Your task to perform on an android device: snooze an email in the gmail app Image 0: 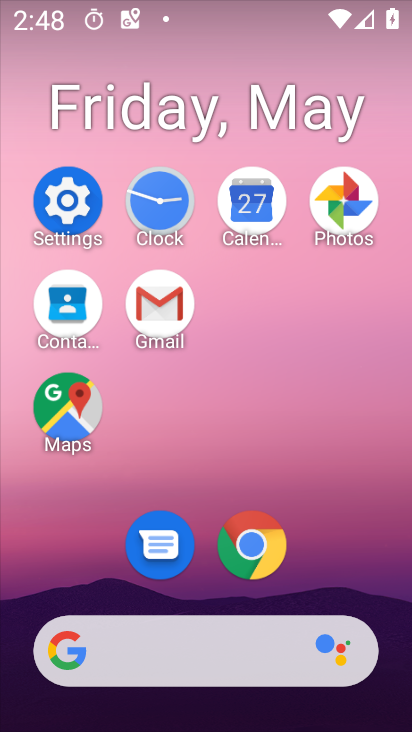
Step 0: click (167, 317)
Your task to perform on an android device: snooze an email in the gmail app Image 1: 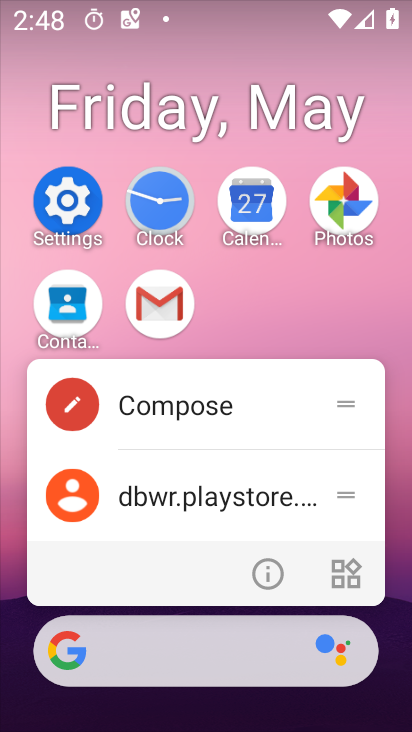
Step 1: click (147, 280)
Your task to perform on an android device: snooze an email in the gmail app Image 2: 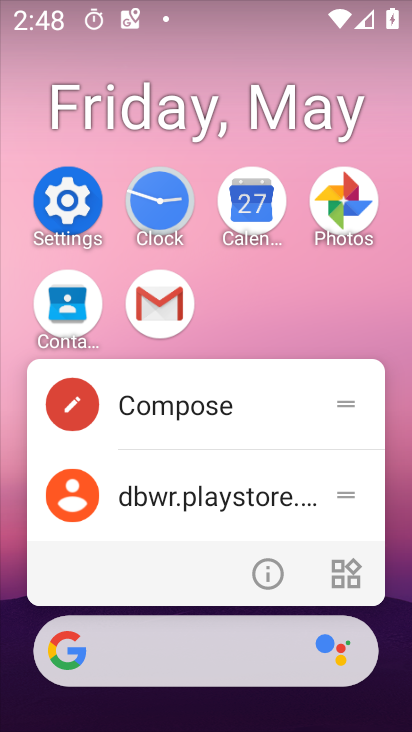
Step 2: click (163, 343)
Your task to perform on an android device: snooze an email in the gmail app Image 3: 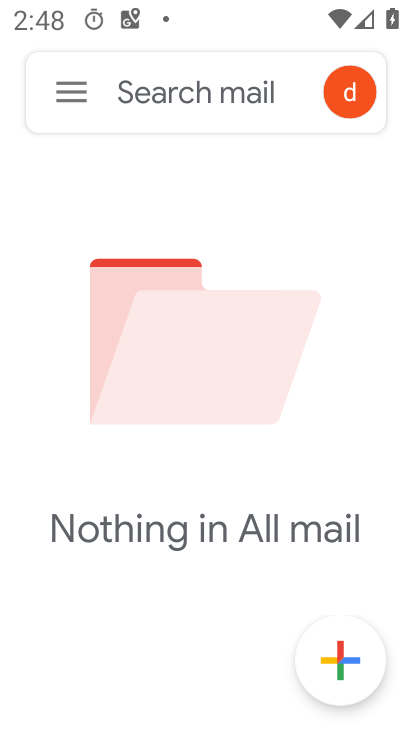
Step 3: click (74, 101)
Your task to perform on an android device: snooze an email in the gmail app Image 4: 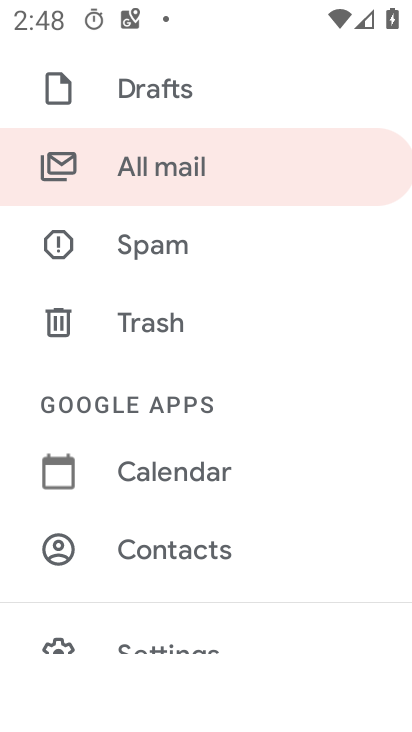
Step 4: drag from (195, 162) to (211, 601)
Your task to perform on an android device: snooze an email in the gmail app Image 5: 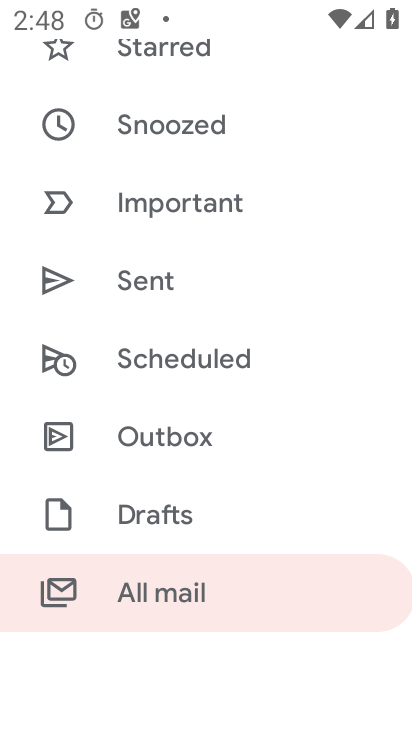
Step 5: drag from (194, 147) to (213, 314)
Your task to perform on an android device: snooze an email in the gmail app Image 6: 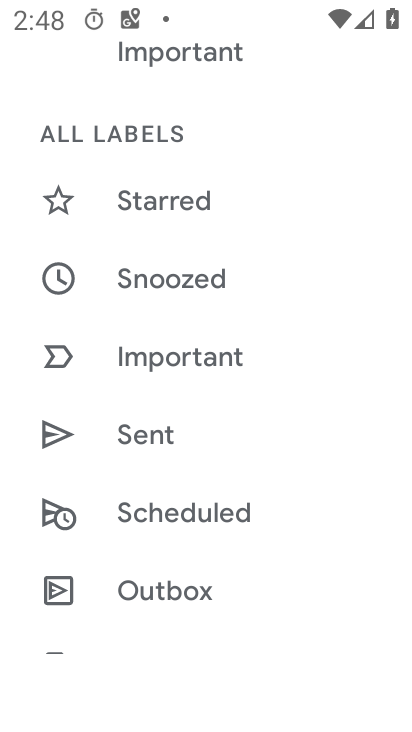
Step 6: drag from (237, 555) to (245, 108)
Your task to perform on an android device: snooze an email in the gmail app Image 7: 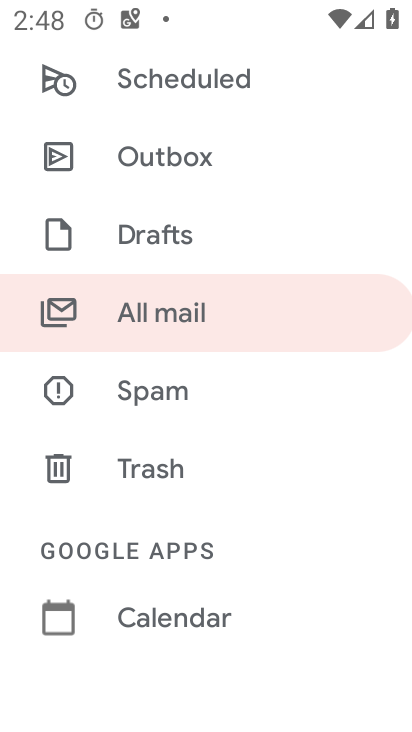
Step 7: click (269, 287)
Your task to perform on an android device: snooze an email in the gmail app Image 8: 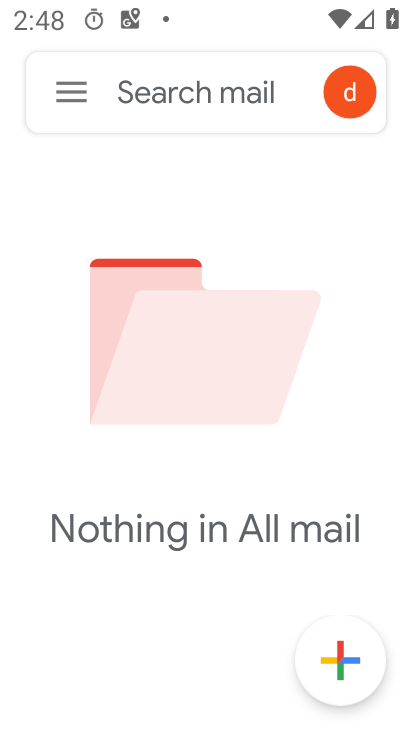
Step 8: task complete